Your task to perform on an android device: Open settings Image 0: 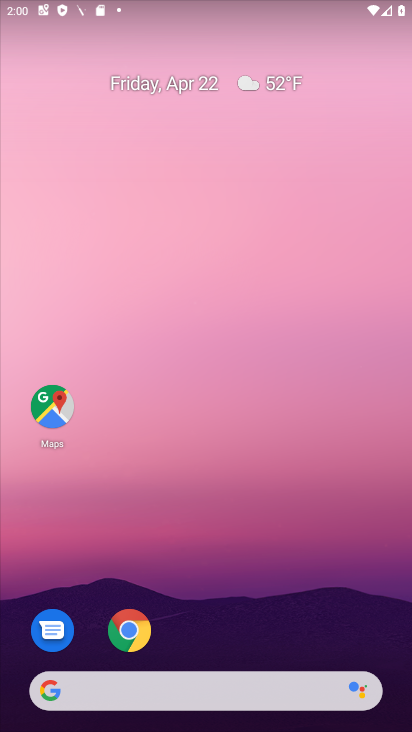
Step 0: drag from (263, 610) to (206, 149)
Your task to perform on an android device: Open settings Image 1: 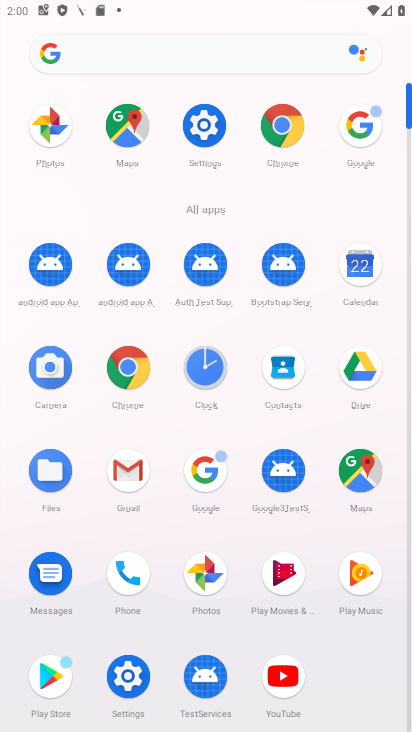
Step 1: click (204, 135)
Your task to perform on an android device: Open settings Image 2: 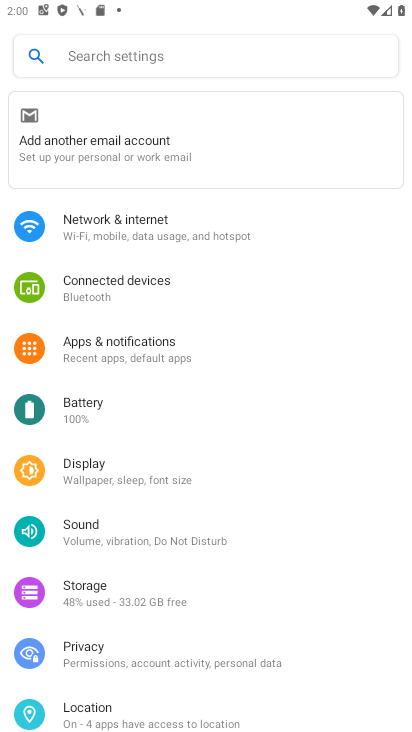
Step 2: task complete